Your task to perform on an android device: Go to battery settings Image 0: 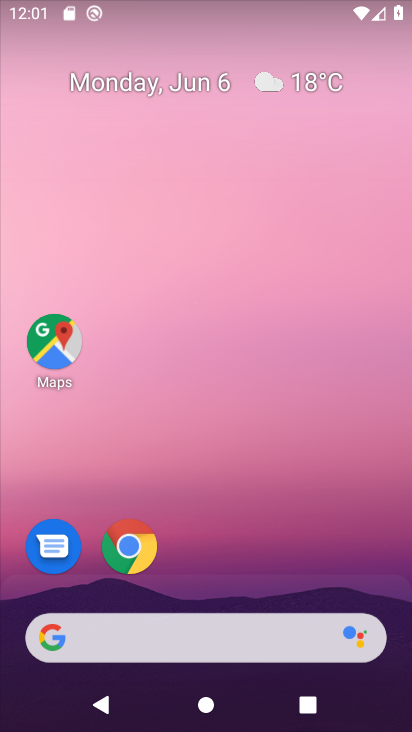
Step 0: drag from (170, 723) to (284, 71)
Your task to perform on an android device: Go to battery settings Image 1: 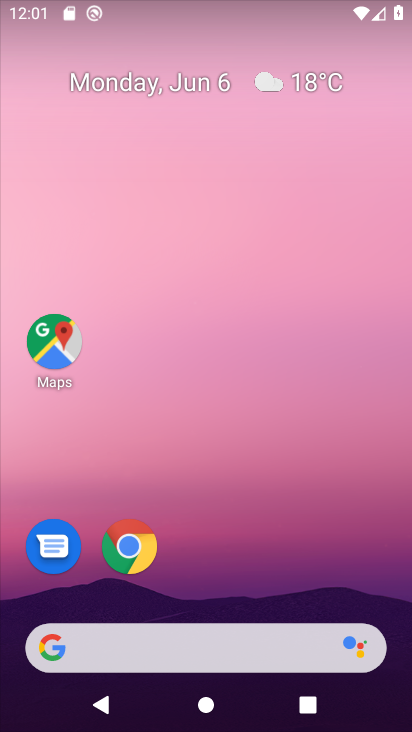
Step 1: drag from (154, 719) to (209, 36)
Your task to perform on an android device: Go to battery settings Image 2: 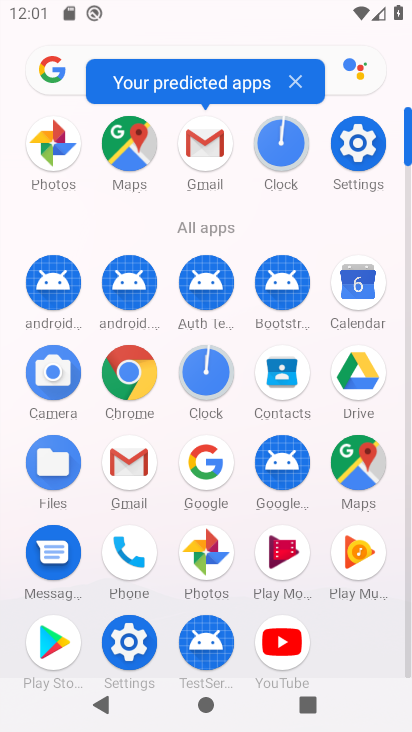
Step 2: click (127, 647)
Your task to perform on an android device: Go to battery settings Image 3: 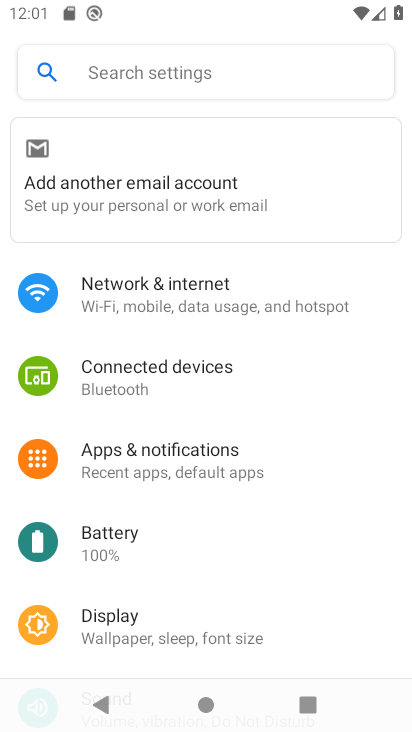
Step 3: click (132, 547)
Your task to perform on an android device: Go to battery settings Image 4: 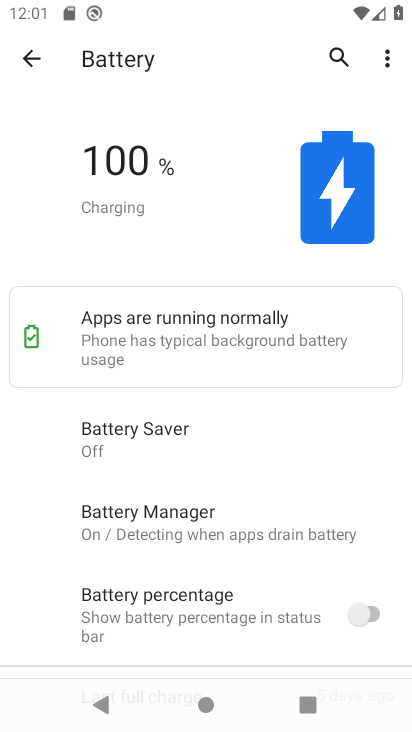
Step 4: task complete